Your task to perform on an android device: toggle pop-ups in chrome Image 0: 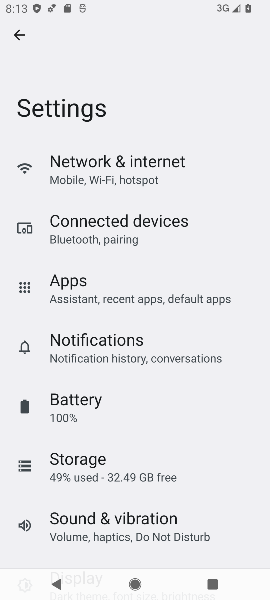
Step 0: press home button
Your task to perform on an android device: toggle pop-ups in chrome Image 1: 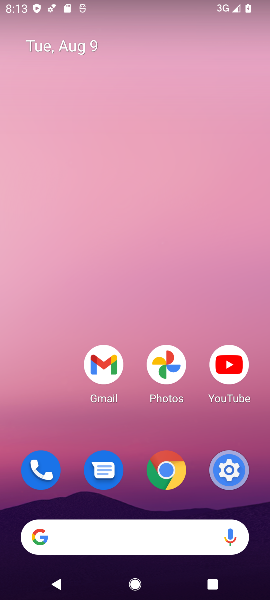
Step 1: click (169, 470)
Your task to perform on an android device: toggle pop-ups in chrome Image 2: 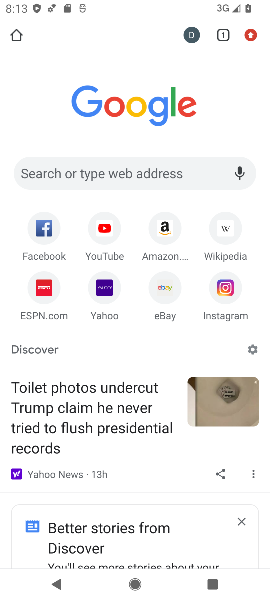
Step 2: click (249, 35)
Your task to perform on an android device: toggle pop-ups in chrome Image 3: 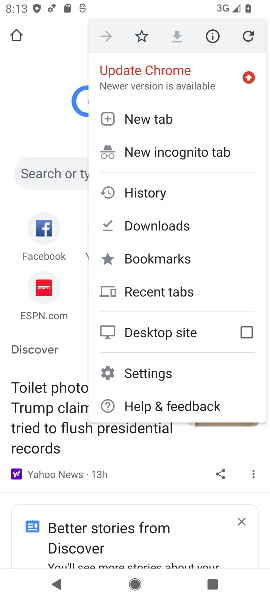
Step 3: click (146, 370)
Your task to perform on an android device: toggle pop-ups in chrome Image 4: 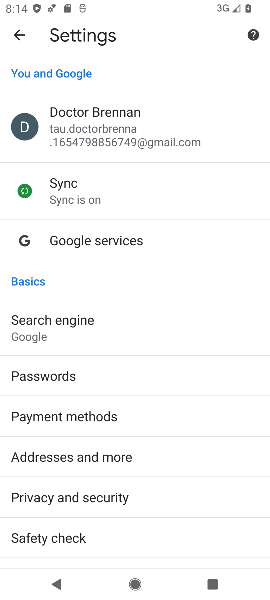
Step 4: drag from (98, 392) to (144, 317)
Your task to perform on an android device: toggle pop-ups in chrome Image 5: 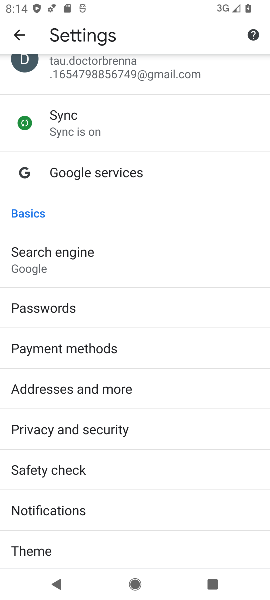
Step 5: drag from (96, 482) to (152, 403)
Your task to perform on an android device: toggle pop-ups in chrome Image 6: 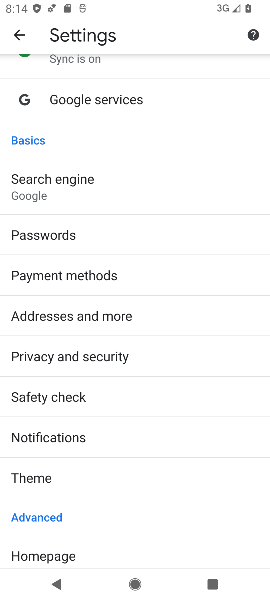
Step 6: drag from (98, 501) to (148, 431)
Your task to perform on an android device: toggle pop-ups in chrome Image 7: 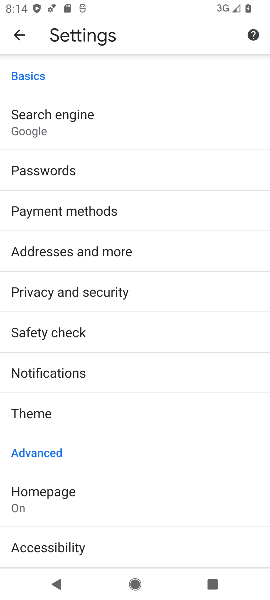
Step 7: drag from (107, 541) to (163, 455)
Your task to perform on an android device: toggle pop-ups in chrome Image 8: 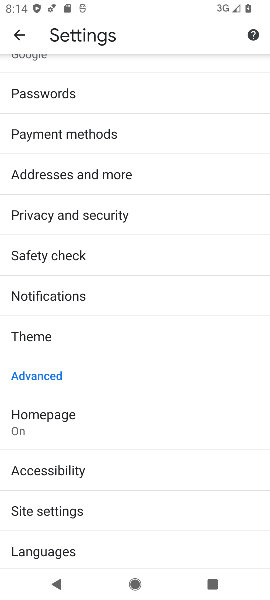
Step 8: click (69, 516)
Your task to perform on an android device: toggle pop-ups in chrome Image 9: 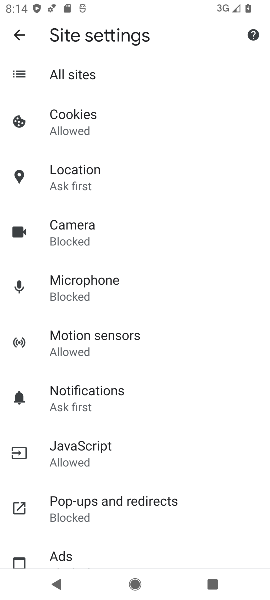
Step 9: click (69, 516)
Your task to perform on an android device: toggle pop-ups in chrome Image 10: 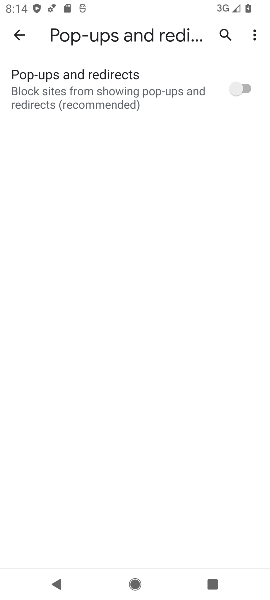
Step 10: click (236, 94)
Your task to perform on an android device: toggle pop-ups in chrome Image 11: 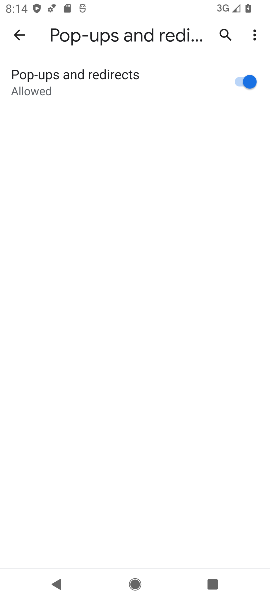
Step 11: task complete